Your task to perform on an android device: toggle show notifications on the lock screen Image 0: 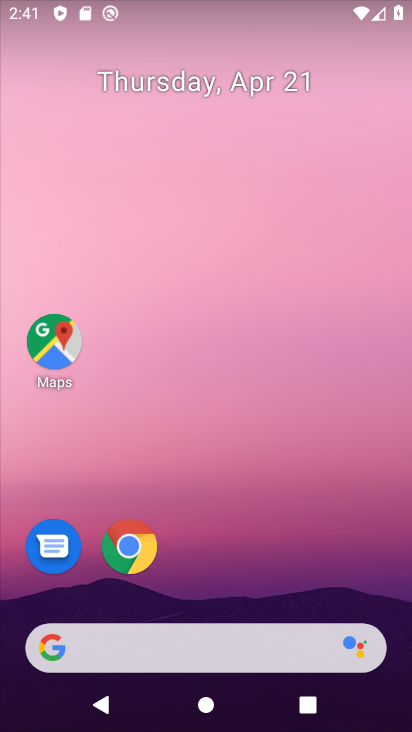
Step 0: click (135, 546)
Your task to perform on an android device: toggle show notifications on the lock screen Image 1: 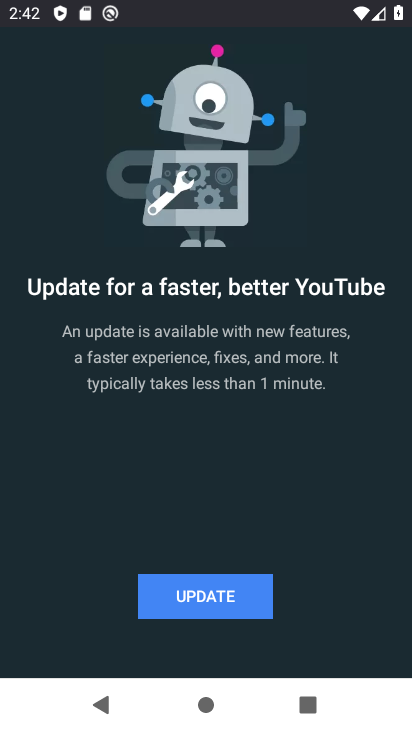
Step 1: click (215, 596)
Your task to perform on an android device: toggle show notifications on the lock screen Image 2: 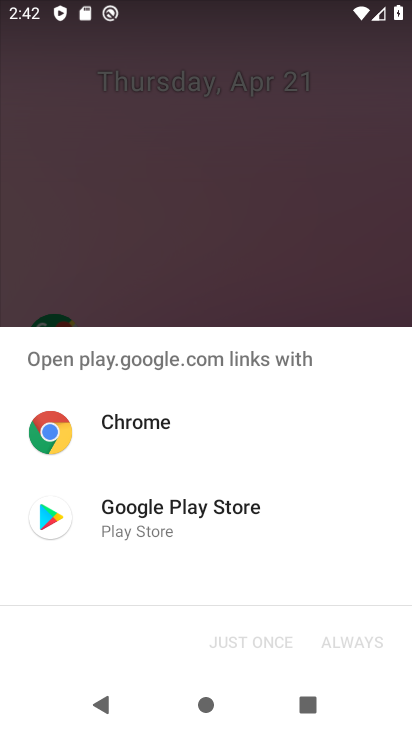
Step 2: click (139, 431)
Your task to perform on an android device: toggle show notifications on the lock screen Image 3: 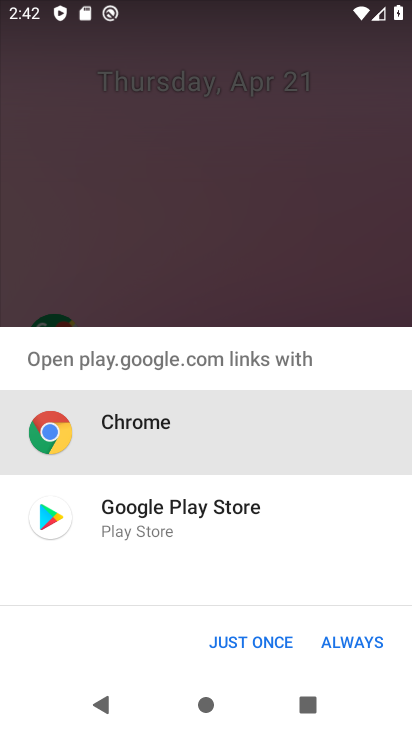
Step 3: press home button
Your task to perform on an android device: toggle show notifications on the lock screen Image 4: 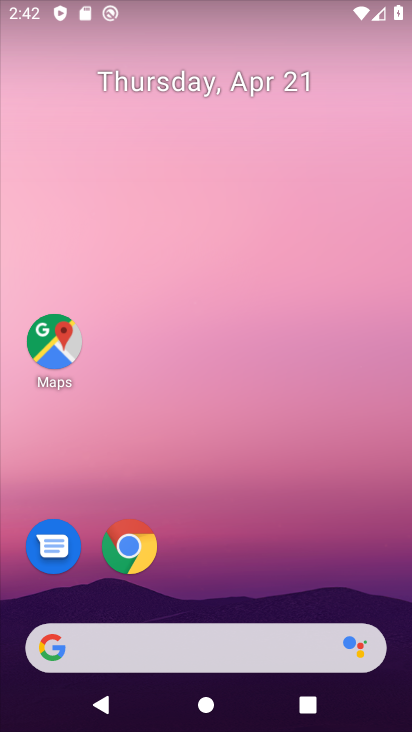
Step 4: drag from (246, 263) to (223, 19)
Your task to perform on an android device: toggle show notifications on the lock screen Image 5: 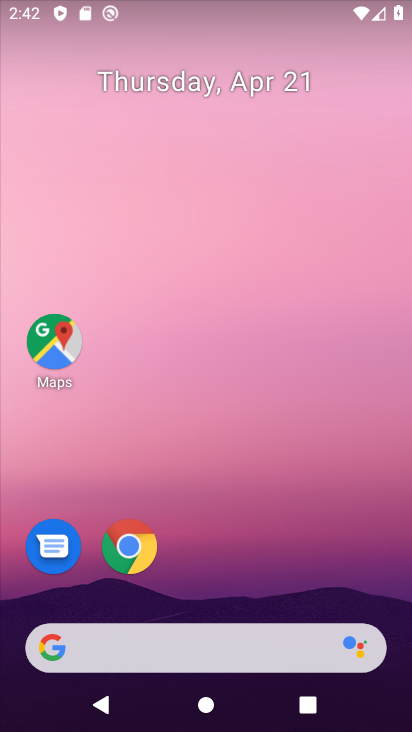
Step 5: drag from (283, 594) to (277, 6)
Your task to perform on an android device: toggle show notifications on the lock screen Image 6: 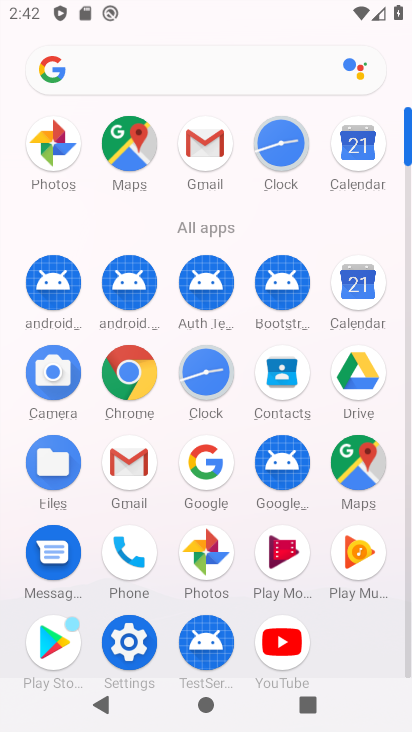
Step 6: click (120, 623)
Your task to perform on an android device: toggle show notifications on the lock screen Image 7: 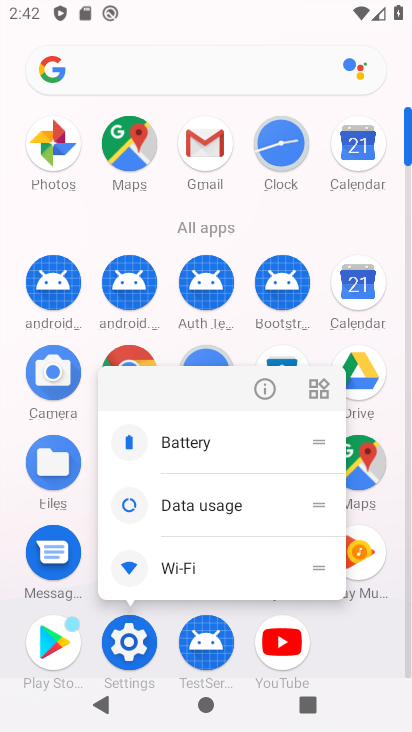
Step 7: click (130, 639)
Your task to perform on an android device: toggle show notifications on the lock screen Image 8: 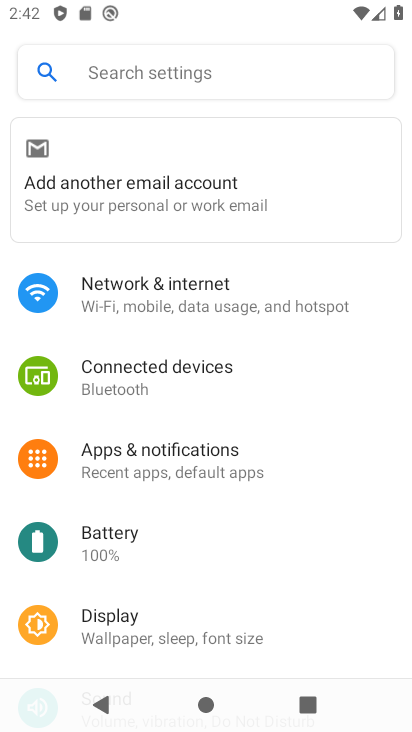
Step 8: click (98, 460)
Your task to perform on an android device: toggle show notifications on the lock screen Image 9: 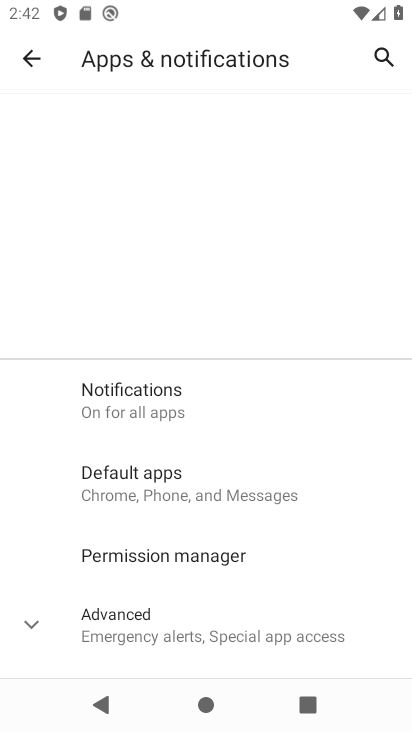
Step 9: click (96, 461)
Your task to perform on an android device: toggle show notifications on the lock screen Image 10: 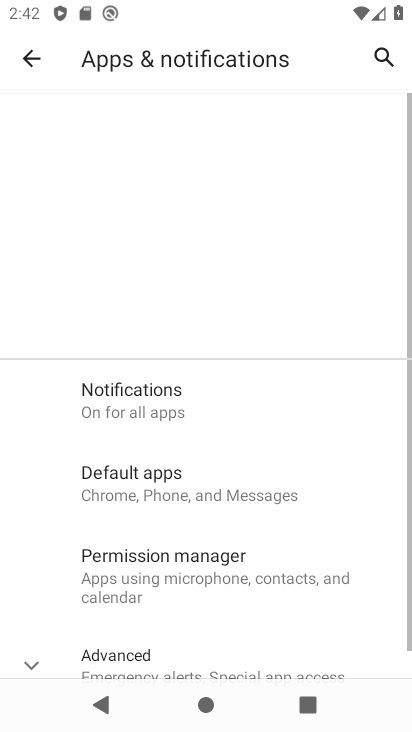
Step 10: drag from (111, 307) to (90, 172)
Your task to perform on an android device: toggle show notifications on the lock screen Image 11: 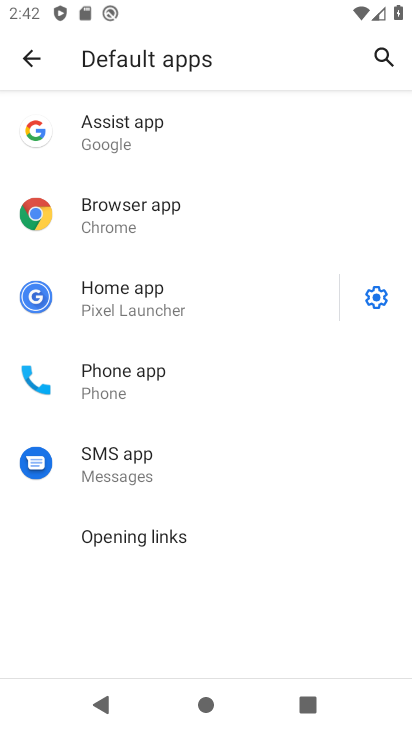
Step 11: click (34, 54)
Your task to perform on an android device: toggle show notifications on the lock screen Image 12: 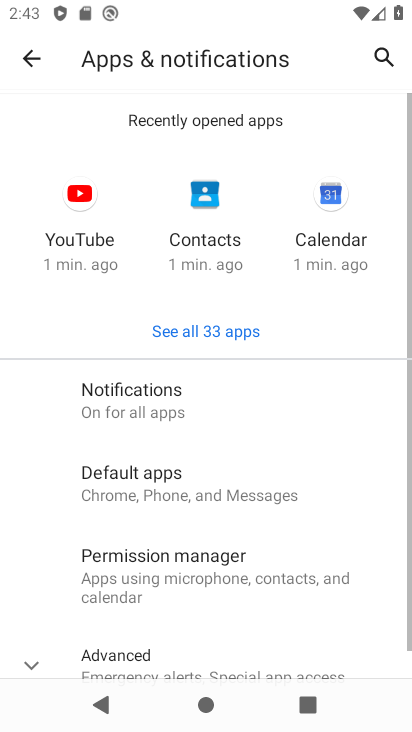
Step 12: drag from (110, 535) to (128, 36)
Your task to perform on an android device: toggle show notifications on the lock screen Image 13: 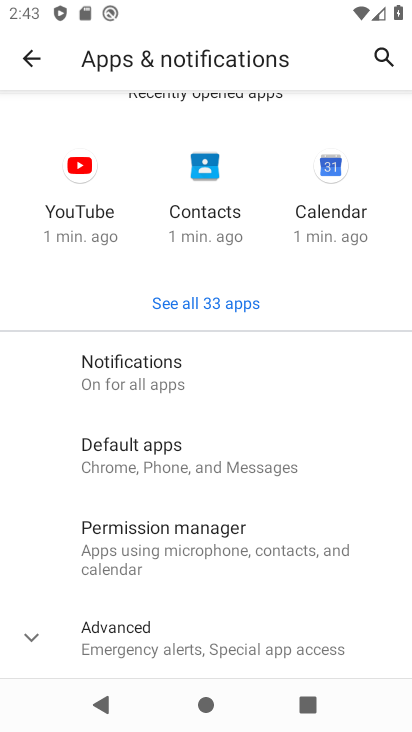
Step 13: click (158, 653)
Your task to perform on an android device: toggle show notifications on the lock screen Image 14: 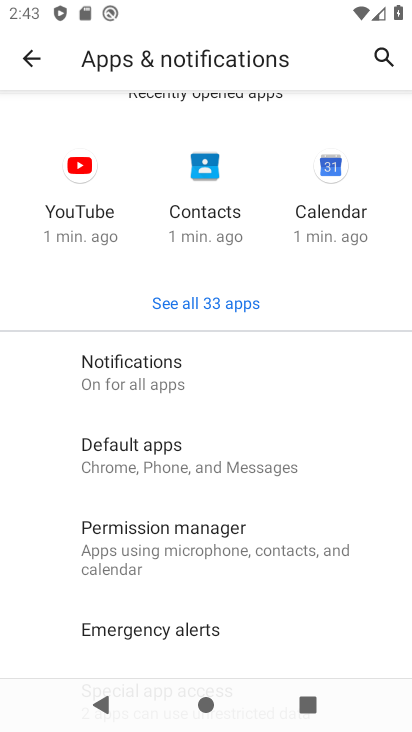
Step 14: drag from (190, 573) to (154, 164)
Your task to perform on an android device: toggle show notifications on the lock screen Image 15: 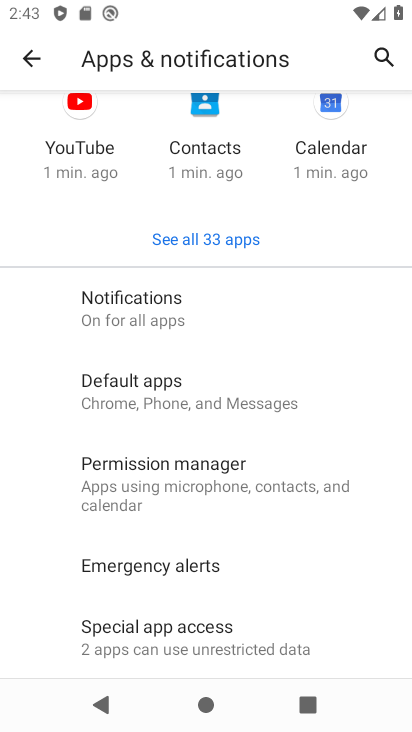
Step 15: drag from (142, 626) to (88, 214)
Your task to perform on an android device: toggle show notifications on the lock screen Image 16: 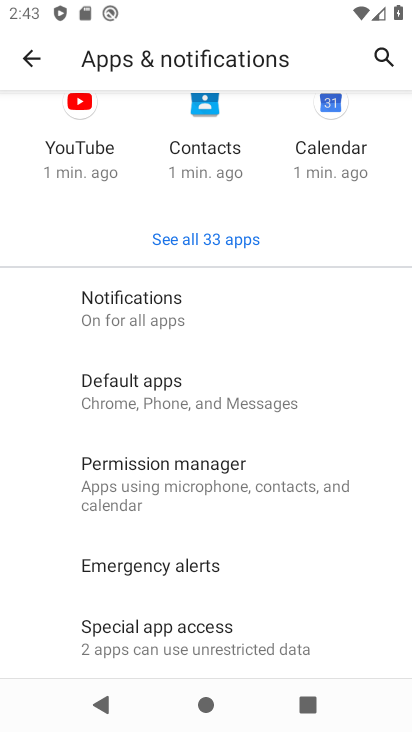
Step 16: click (153, 312)
Your task to perform on an android device: toggle show notifications on the lock screen Image 17: 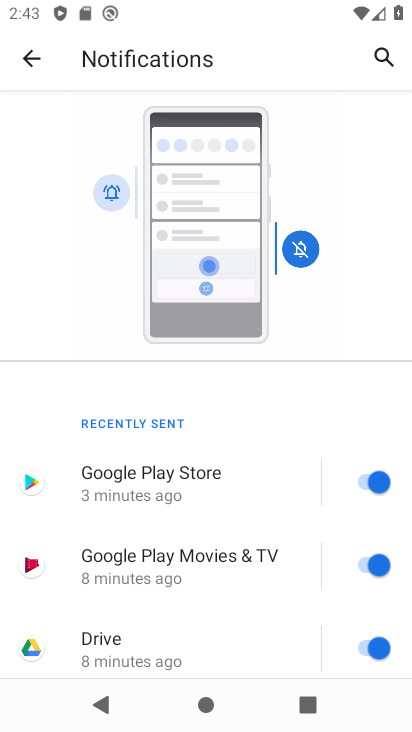
Step 17: drag from (157, 596) to (96, 155)
Your task to perform on an android device: toggle show notifications on the lock screen Image 18: 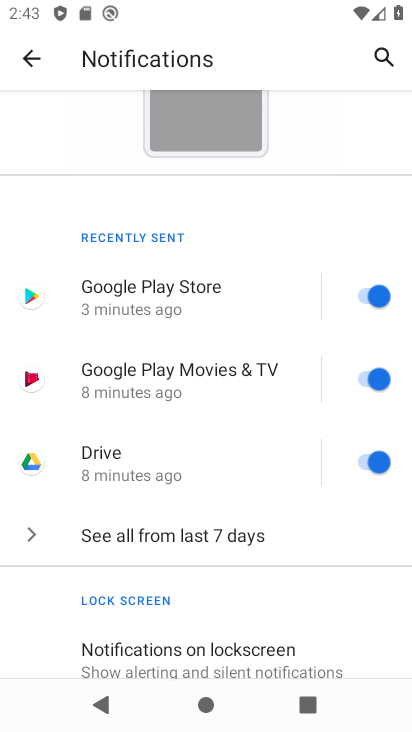
Step 18: drag from (99, 411) to (89, 224)
Your task to perform on an android device: toggle show notifications on the lock screen Image 19: 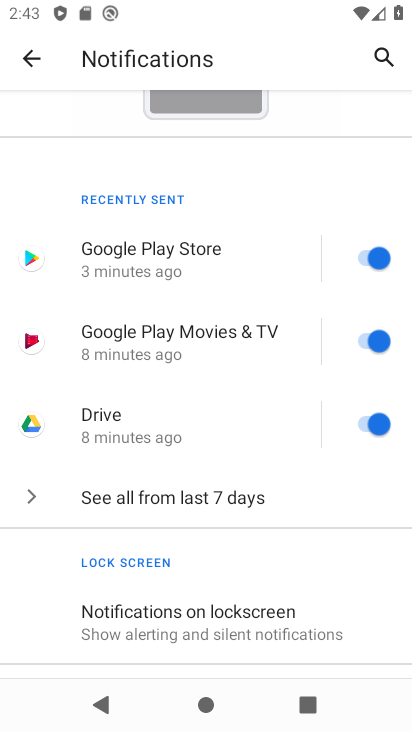
Step 19: click (184, 613)
Your task to perform on an android device: toggle show notifications on the lock screen Image 20: 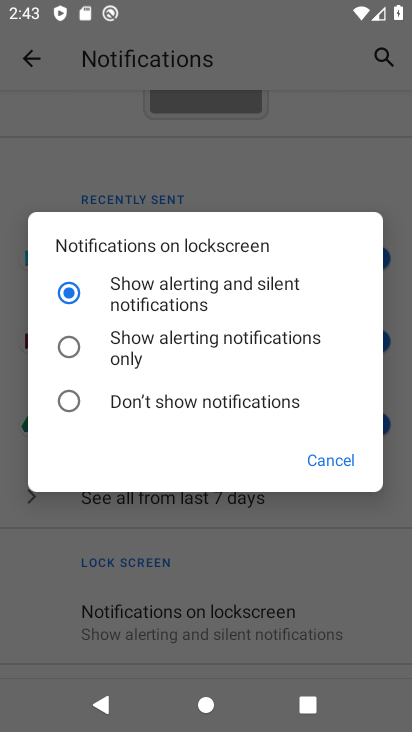
Step 20: click (66, 341)
Your task to perform on an android device: toggle show notifications on the lock screen Image 21: 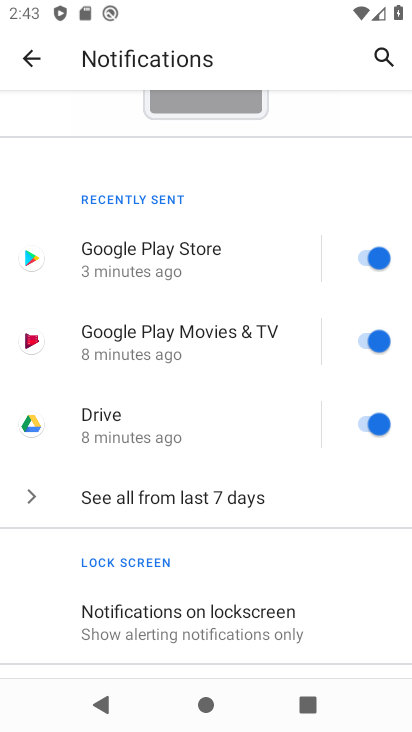
Step 21: task complete